Your task to perform on an android device: turn on bluetooth scan Image 0: 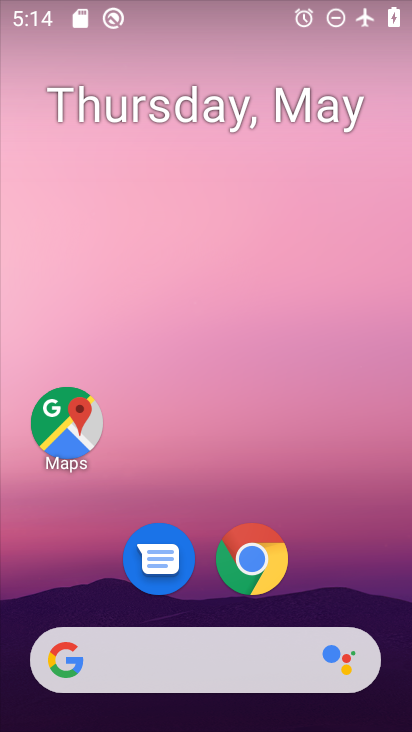
Step 0: drag from (354, 542) to (189, 54)
Your task to perform on an android device: turn on bluetooth scan Image 1: 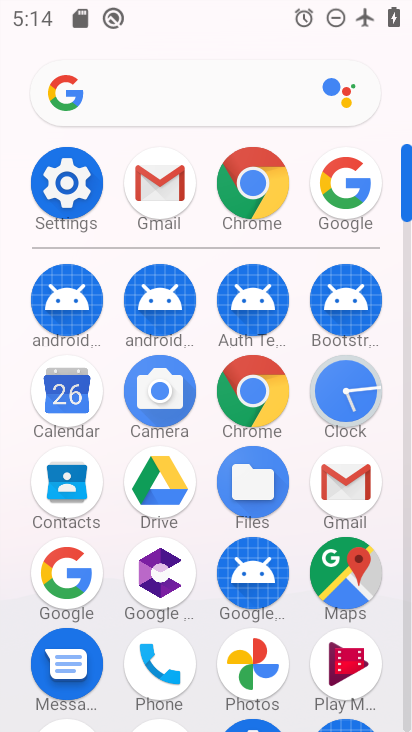
Step 1: click (78, 187)
Your task to perform on an android device: turn on bluetooth scan Image 2: 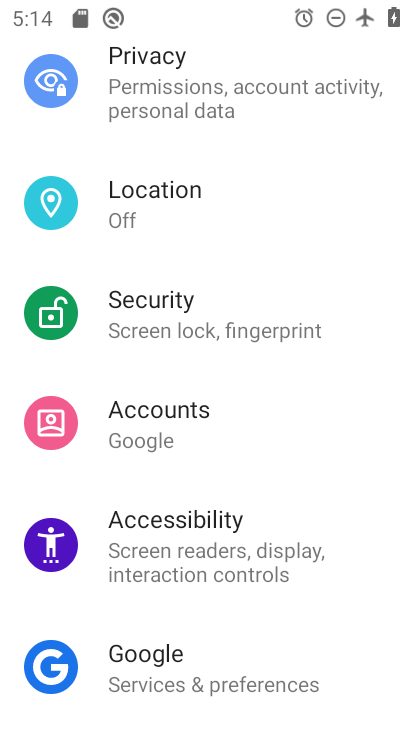
Step 2: drag from (273, 328) to (264, 134)
Your task to perform on an android device: turn on bluetooth scan Image 3: 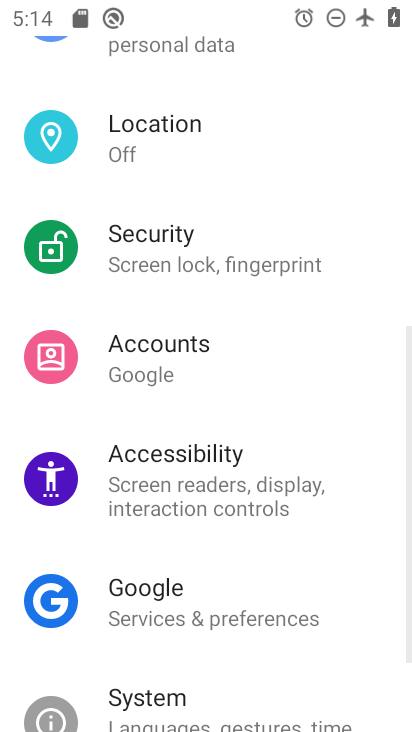
Step 3: drag from (278, 115) to (206, 730)
Your task to perform on an android device: turn on bluetooth scan Image 4: 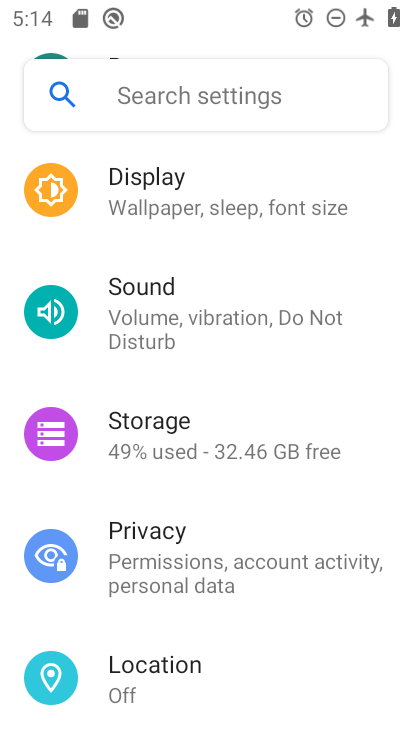
Step 4: click (177, 689)
Your task to perform on an android device: turn on bluetooth scan Image 5: 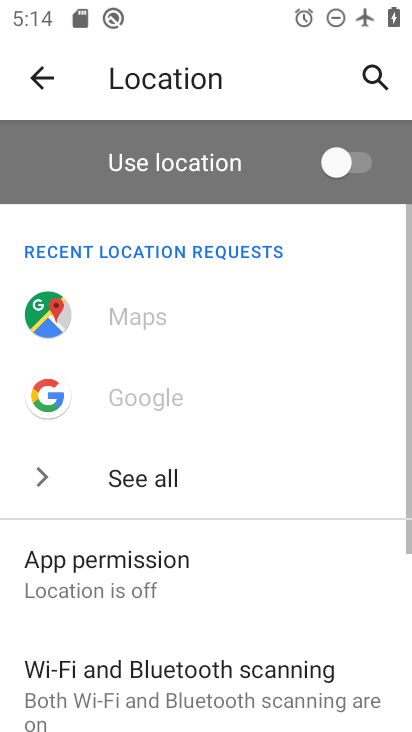
Step 5: drag from (261, 586) to (294, 152)
Your task to perform on an android device: turn on bluetooth scan Image 6: 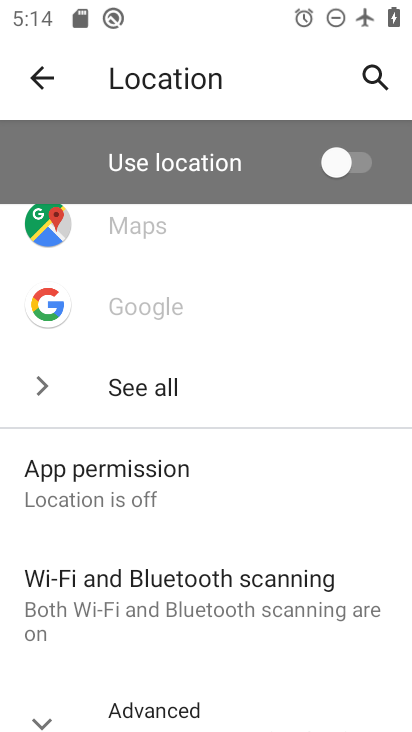
Step 6: drag from (226, 598) to (238, 316)
Your task to perform on an android device: turn on bluetooth scan Image 7: 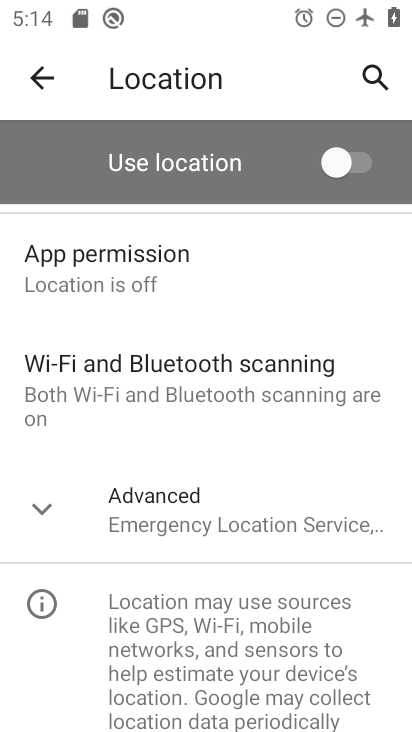
Step 7: click (268, 376)
Your task to perform on an android device: turn on bluetooth scan Image 8: 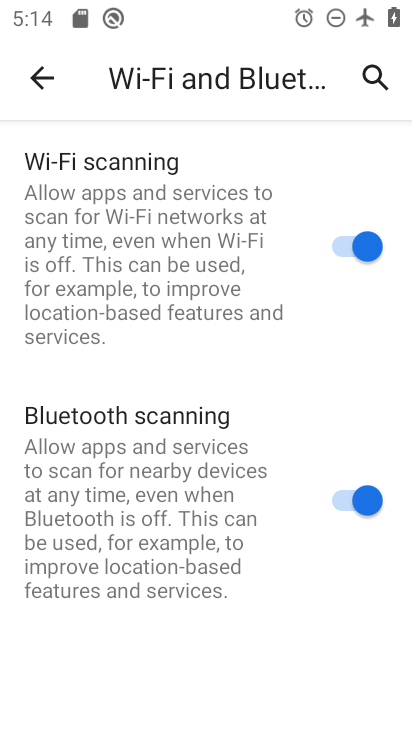
Step 8: task complete